Your task to perform on an android device: Open Google Chrome and open the bookmarks view Image 0: 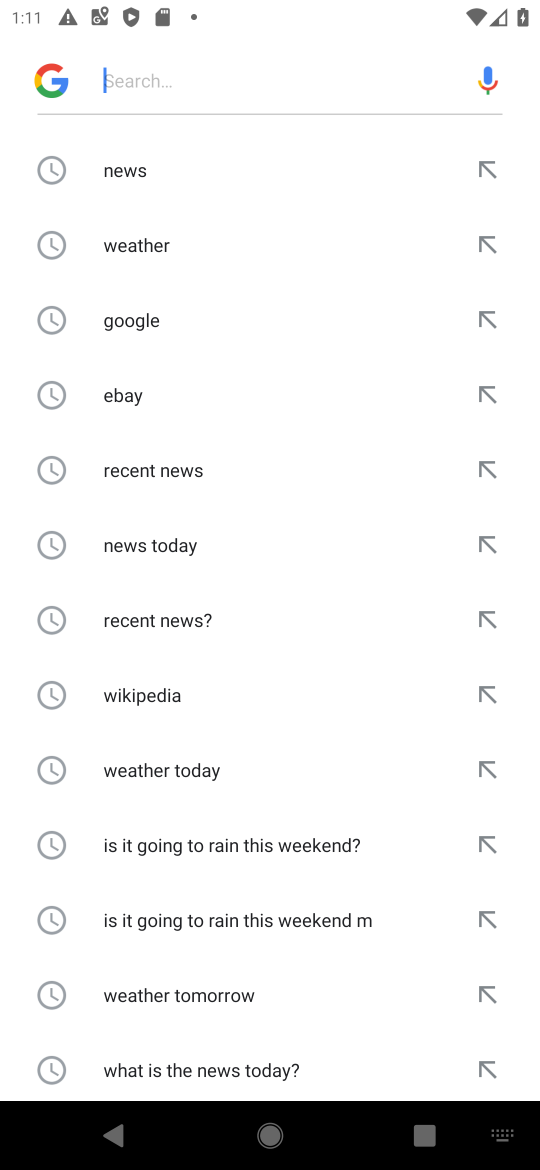
Step 0: press back button
Your task to perform on an android device: Open Google Chrome and open the bookmarks view Image 1: 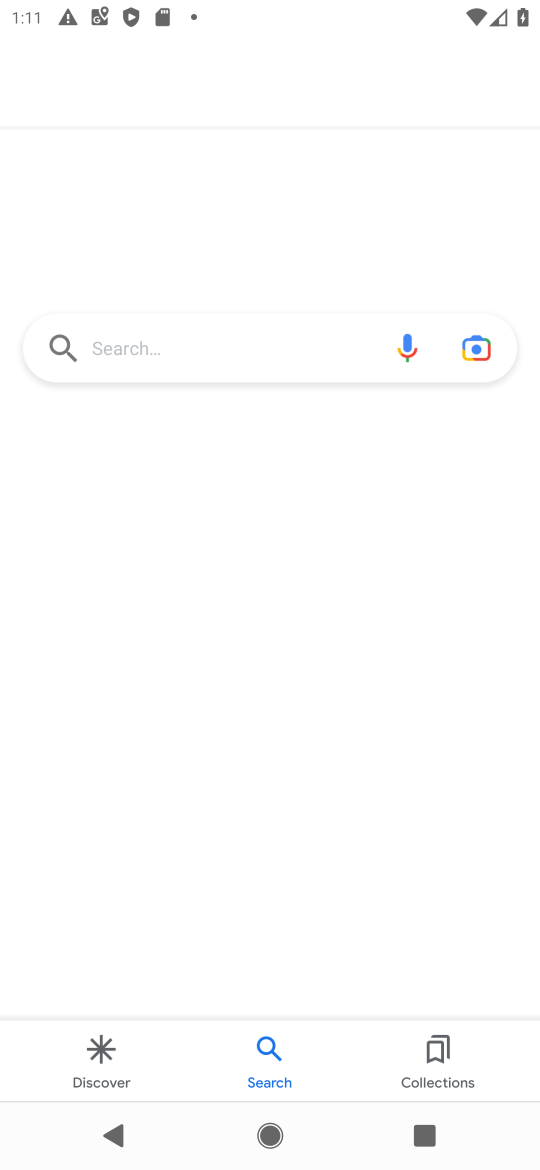
Step 1: press back button
Your task to perform on an android device: Open Google Chrome and open the bookmarks view Image 2: 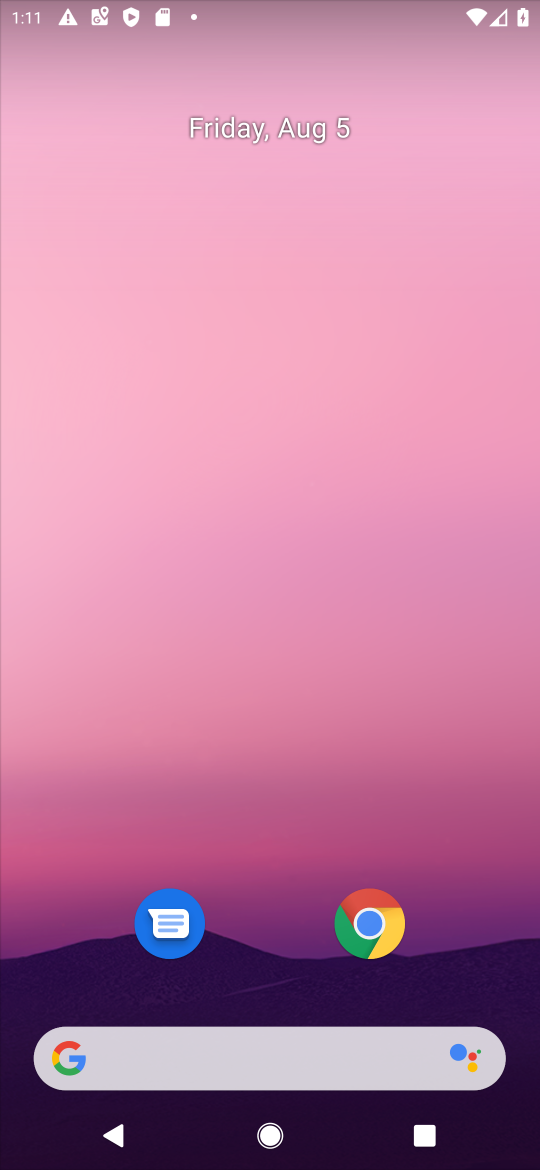
Step 2: drag from (329, 1009) to (244, 154)
Your task to perform on an android device: Open Google Chrome and open the bookmarks view Image 3: 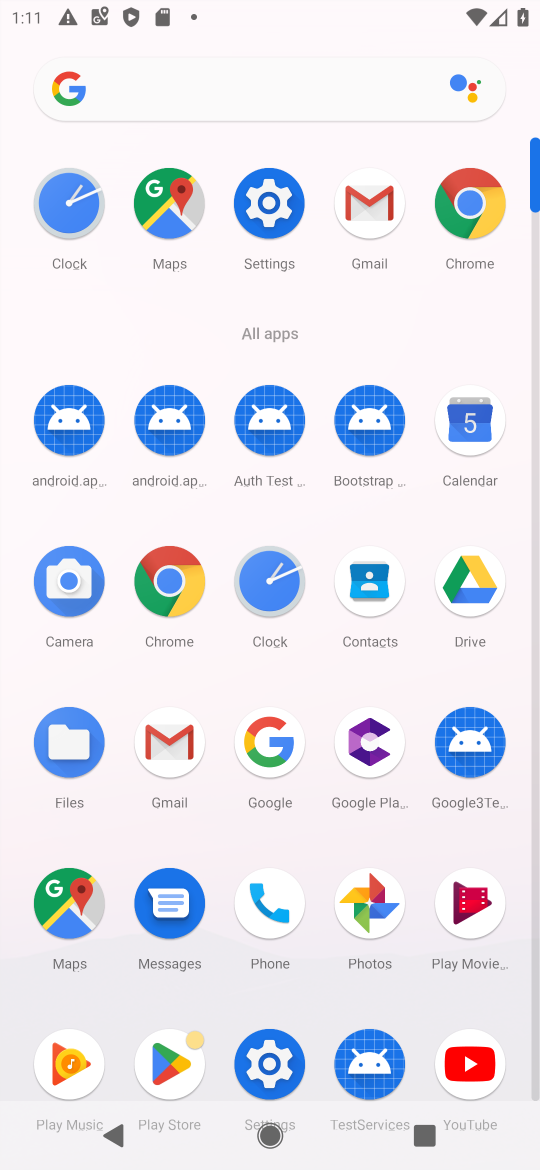
Step 3: click (178, 569)
Your task to perform on an android device: Open Google Chrome and open the bookmarks view Image 4: 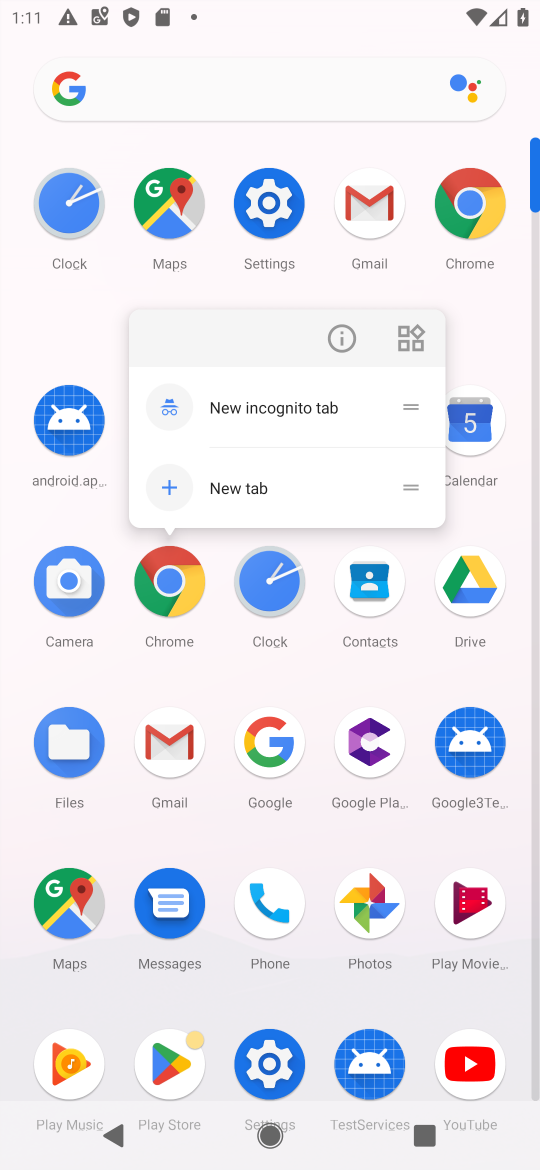
Step 4: click (159, 611)
Your task to perform on an android device: Open Google Chrome and open the bookmarks view Image 5: 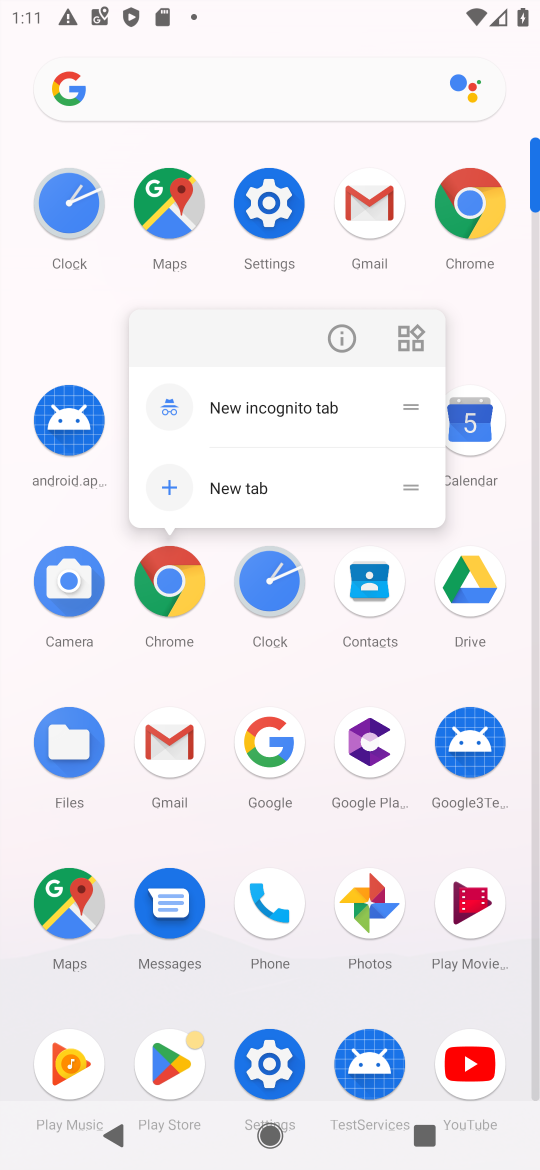
Step 5: click (163, 594)
Your task to perform on an android device: Open Google Chrome and open the bookmarks view Image 6: 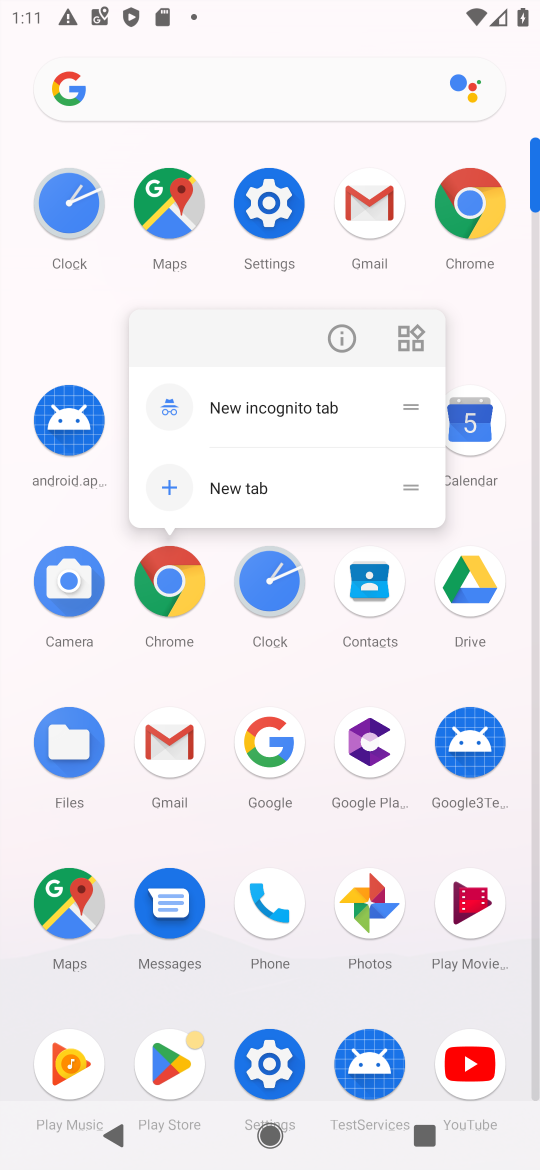
Step 6: click (177, 570)
Your task to perform on an android device: Open Google Chrome and open the bookmarks view Image 7: 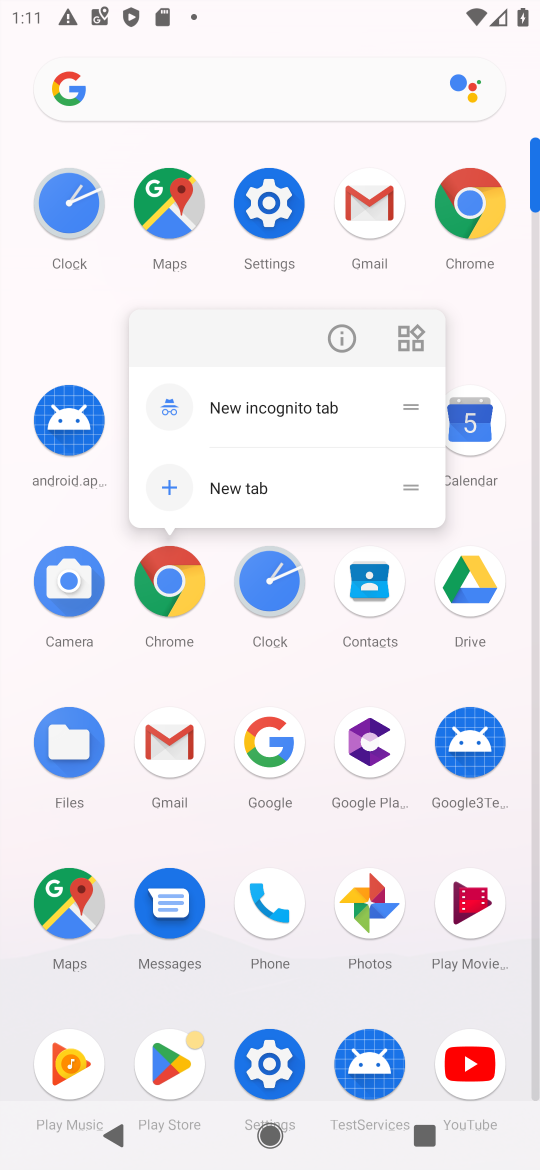
Step 7: click (194, 551)
Your task to perform on an android device: Open Google Chrome and open the bookmarks view Image 8: 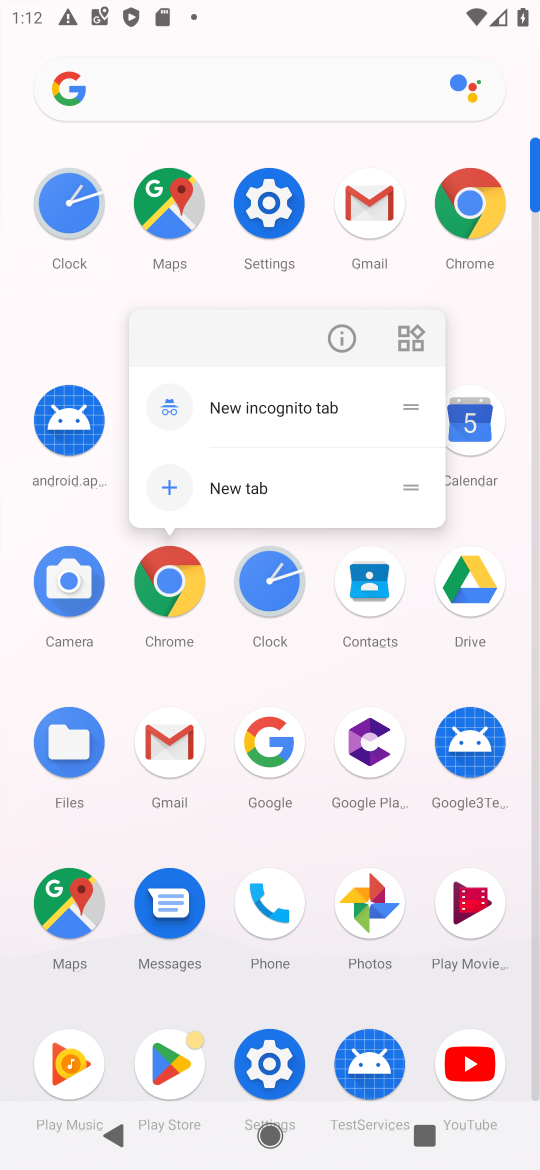
Step 8: click (183, 565)
Your task to perform on an android device: Open Google Chrome and open the bookmarks view Image 9: 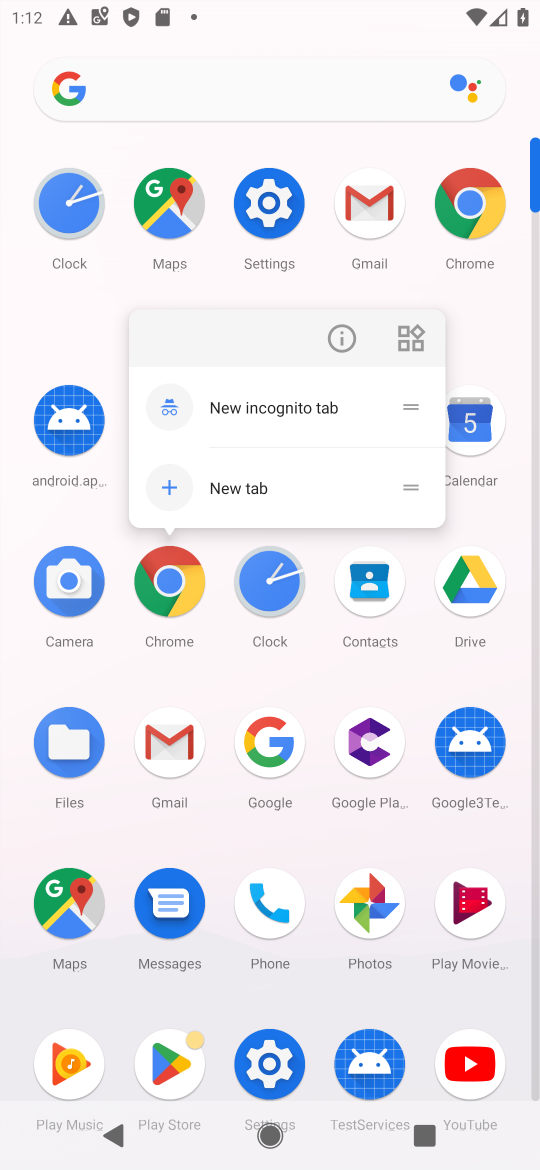
Step 9: click (166, 599)
Your task to perform on an android device: Open Google Chrome and open the bookmarks view Image 10: 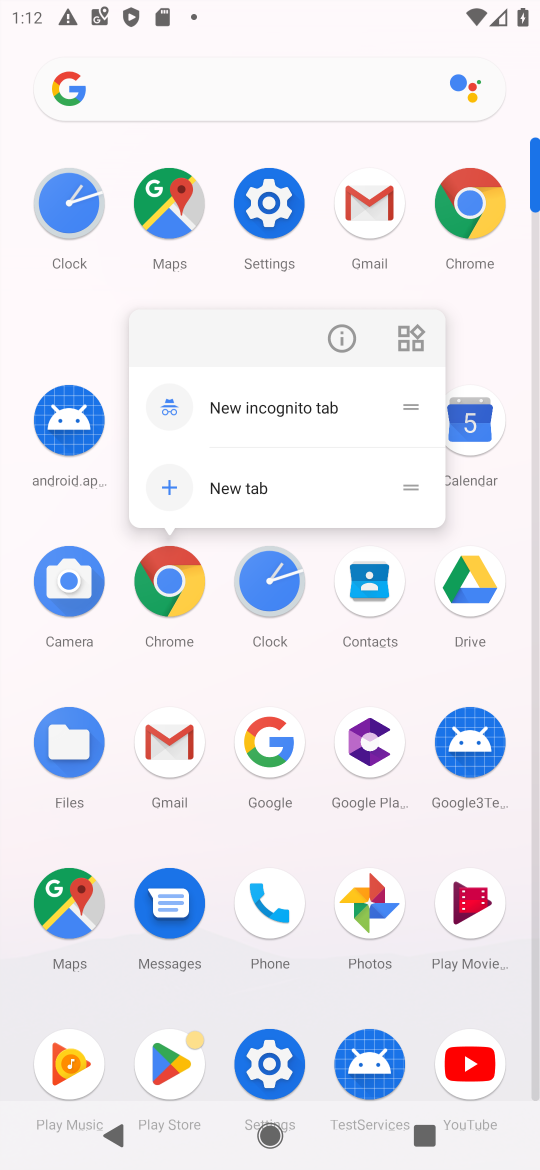
Step 10: click (134, 630)
Your task to perform on an android device: Open Google Chrome and open the bookmarks view Image 11: 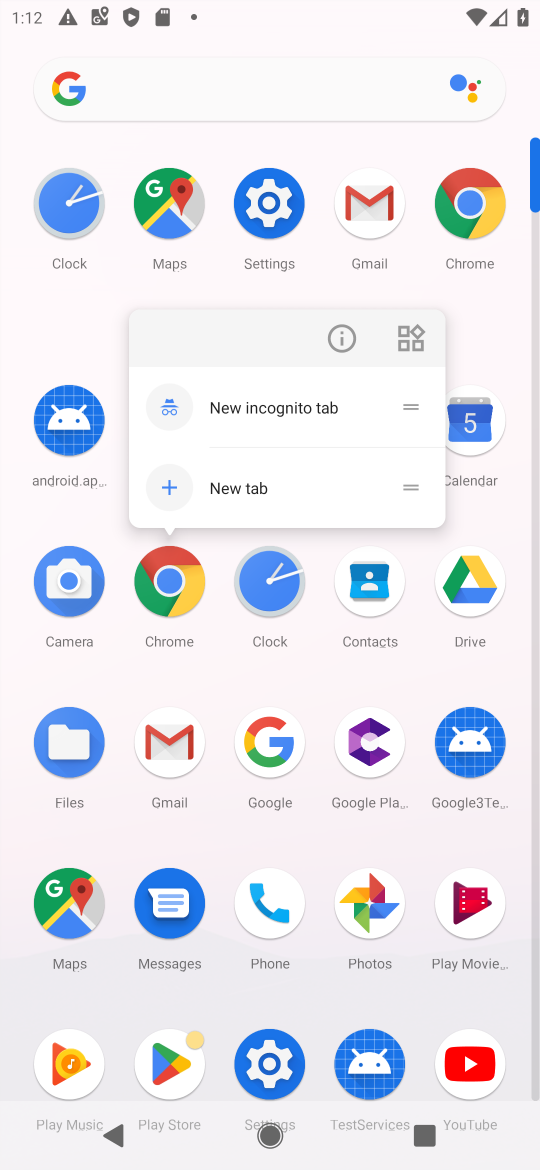
Step 11: click (134, 630)
Your task to perform on an android device: Open Google Chrome and open the bookmarks view Image 12: 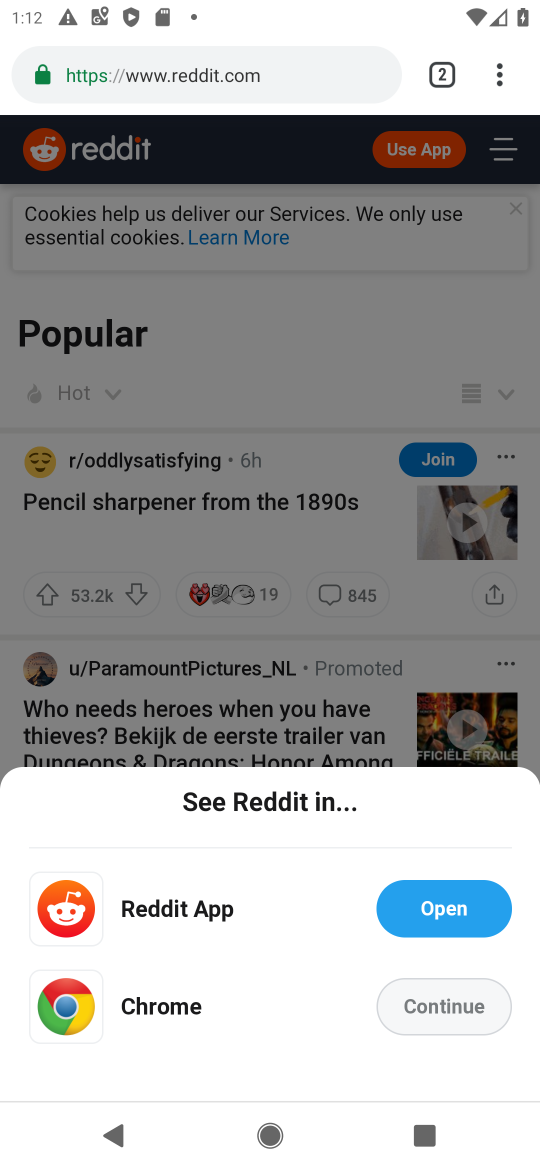
Step 12: click (484, 914)
Your task to perform on an android device: Open Google Chrome and open the bookmarks view Image 13: 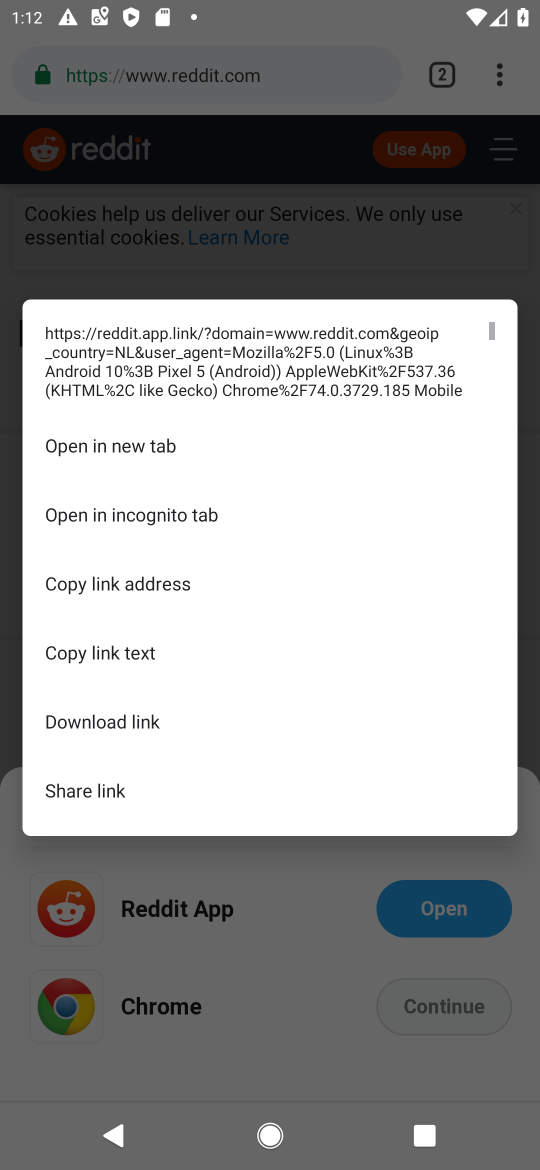
Step 13: click (460, 1015)
Your task to perform on an android device: Open Google Chrome and open the bookmarks view Image 14: 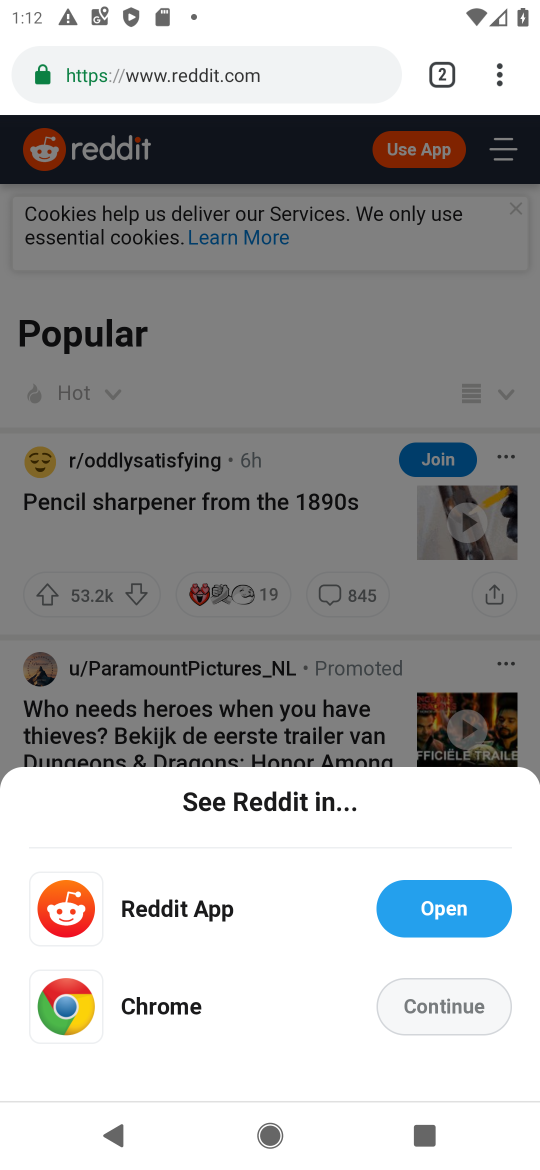
Step 14: click (459, 1012)
Your task to perform on an android device: Open Google Chrome and open the bookmarks view Image 15: 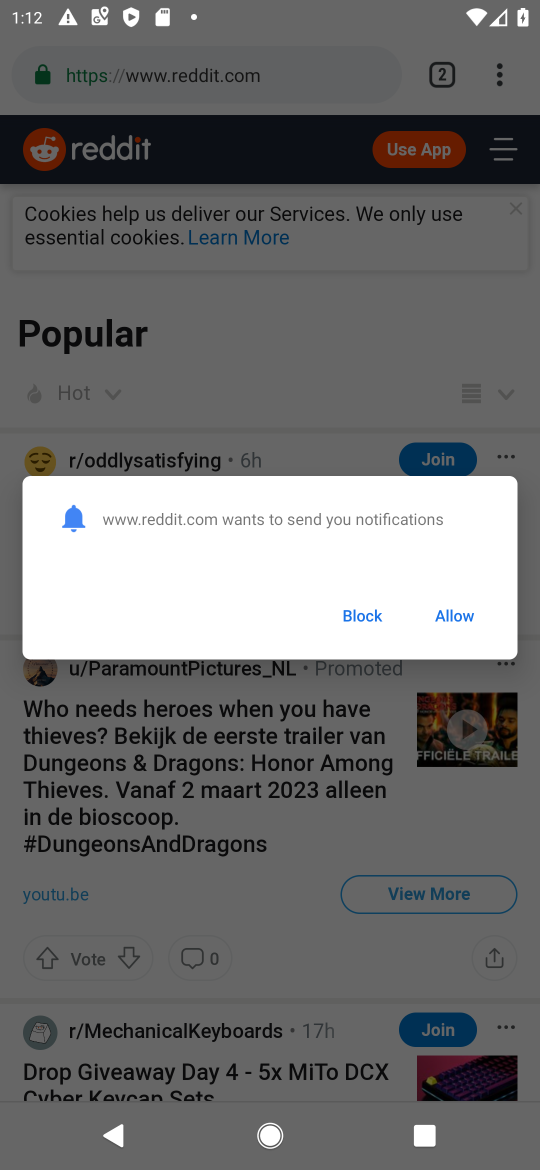
Step 15: click (456, 612)
Your task to perform on an android device: Open Google Chrome and open the bookmarks view Image 16: 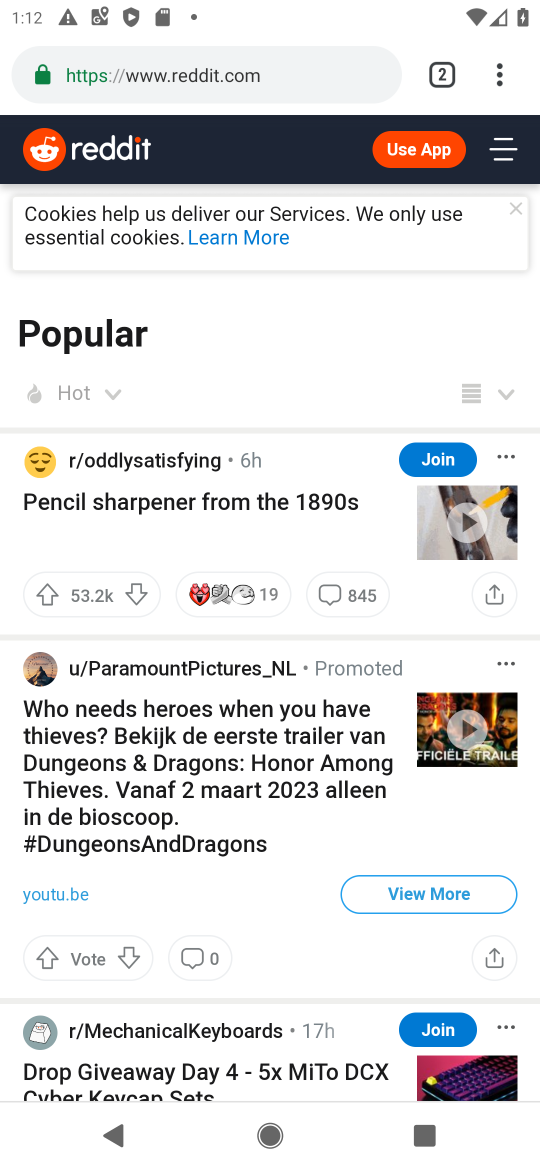
Step 16: task complete